Your task to perform on an android device: What's the weather going to be tomorrow? Image 0: 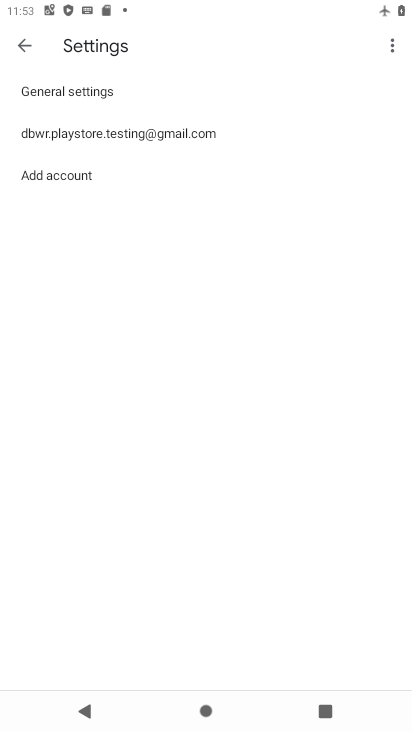
Step 0: press home button
Your task to perform on an android device: What's the weather going to be tomorrow? Image 1: 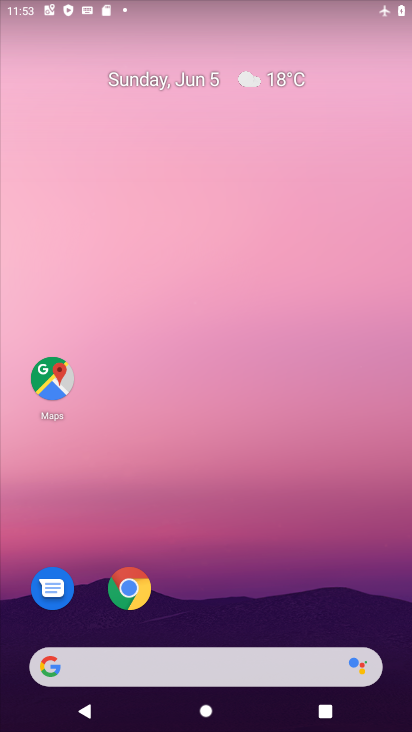
Step 1: click (286, 664)
Your task to perform on an android device: What's the weather going to be tomorrow? Image 2: 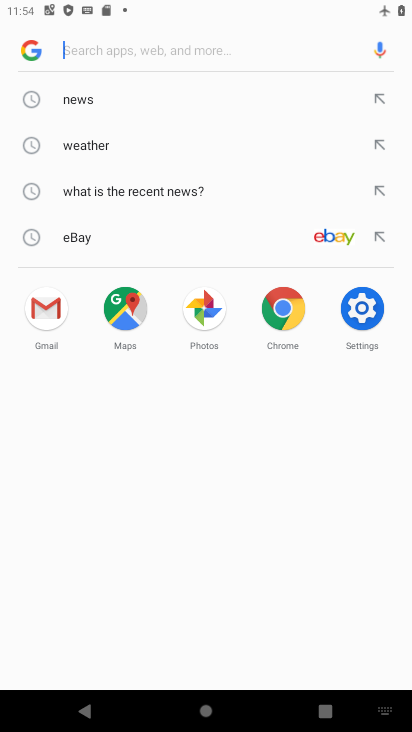
Step 2: type "What's the weather going to be tomorrow?"
Your task to perform on an android device: What's the weather going to be tomorrow? Image 3: 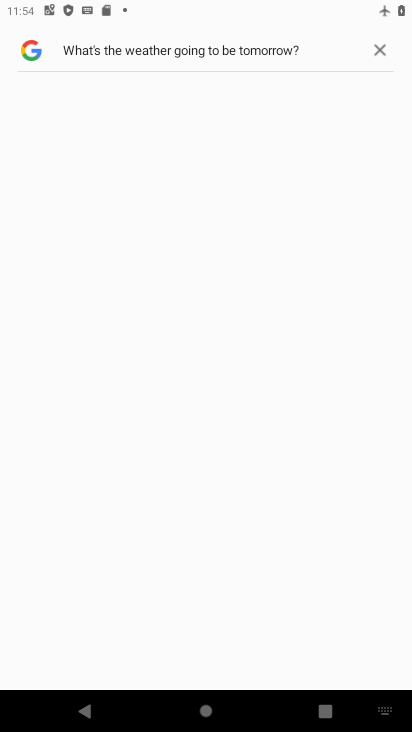
Step 3: press enter
Your task to perform on an android device: What's the weather going to be tomorrow? Image 4: 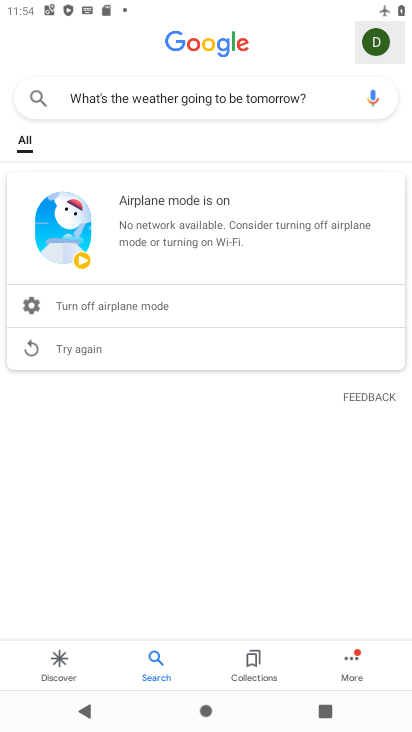
Step 4: task complete